Your task to perform on an android device: Go to Google maps Image 0: 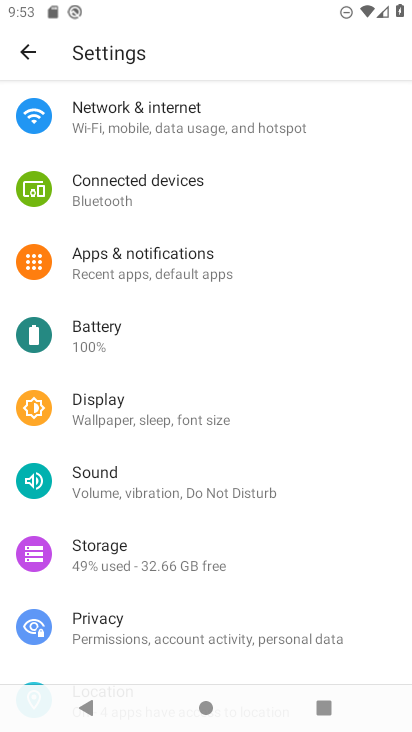
Step 0: press home button
Your task to perform on an android device: Go to Google maps Image 1: 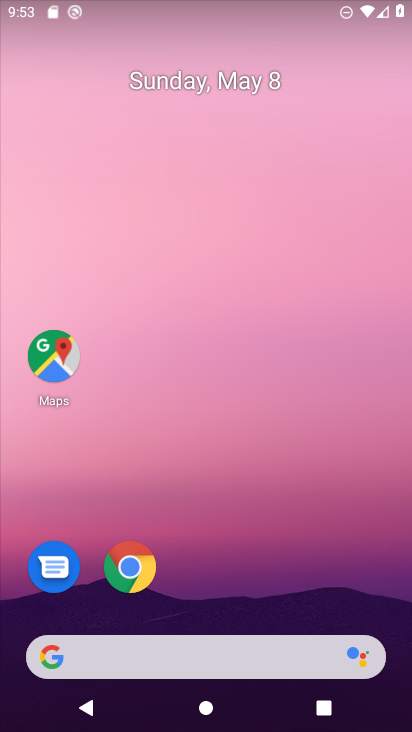
Step 1: click (59, 350)
Your task to perform on an android device: Go to Google maps Image 2: 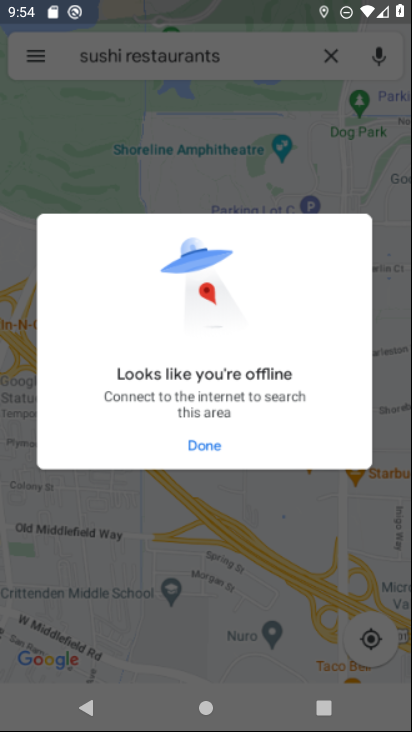
Step 2: click (204, 448)
Your task to perform on an android device: Go to Google maps Image 3: 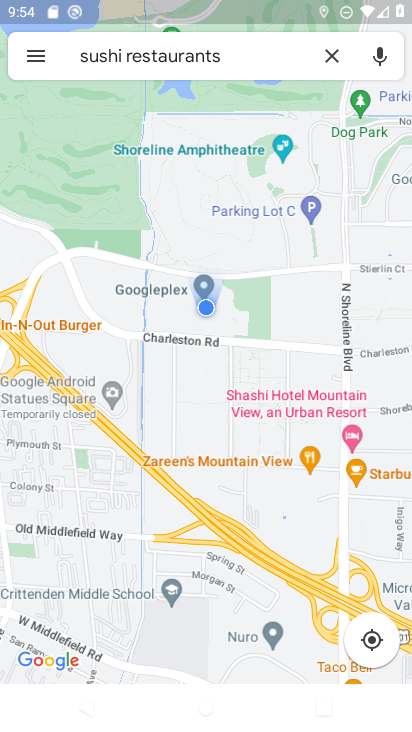
Step 3: click (333, 50)
Your task to perform on an android device: Go to Google maps Image 4: 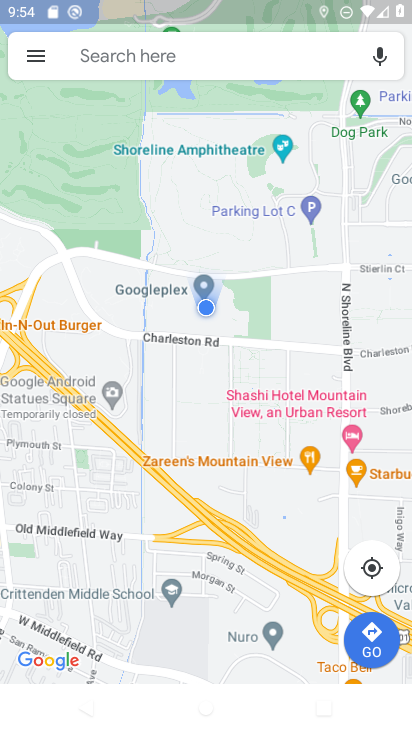
Step 4: task complete